Your task to perform on an android device: Go to Yahoo.com Image 0: 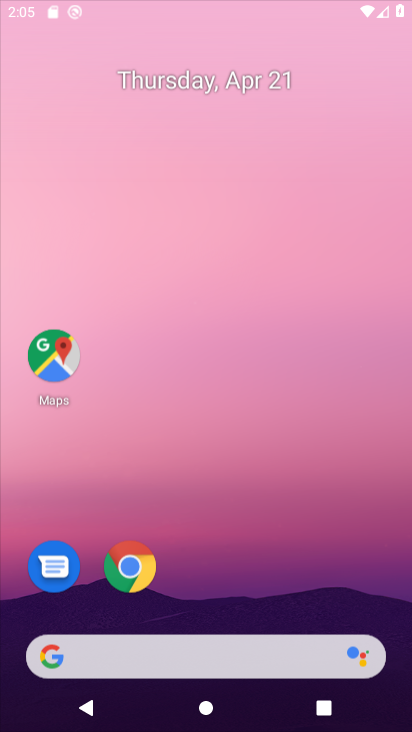
Step 0: click (199, 37)
Your task to perform on an android device: Go to Yahoo.com Image 1: 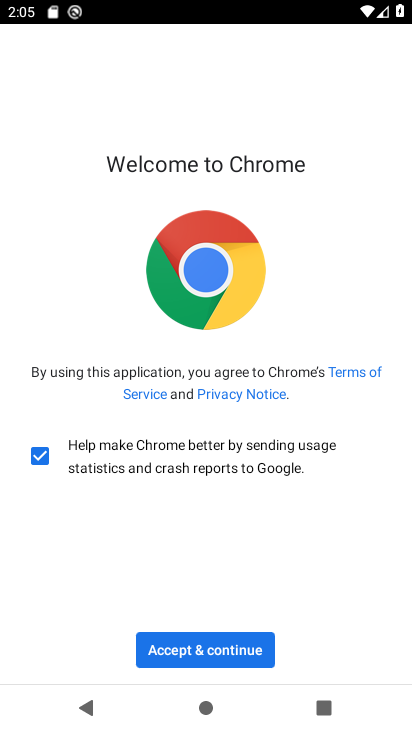
Step 1: click (222, 641)
Your task to perform on an android device: Go to Yahoo.com Image 2: 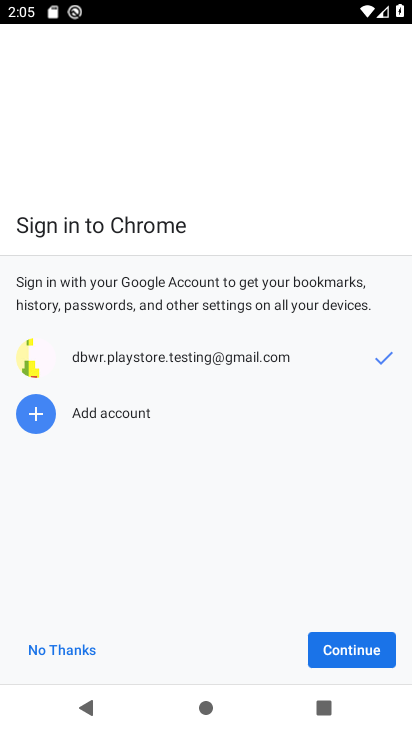
Step 2: click (341, 652)
Your task to perform on an android device: Go to Yahoo.com Image 3: 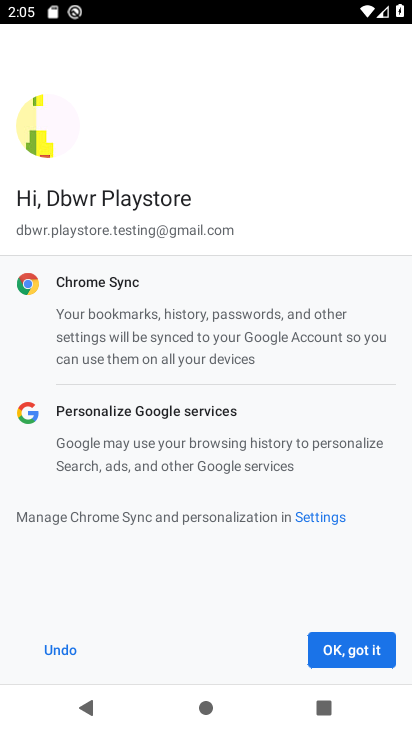
Step 3: click (341, 652)
Your task to perform on an android device: Go to Yahoo.com Image 4: 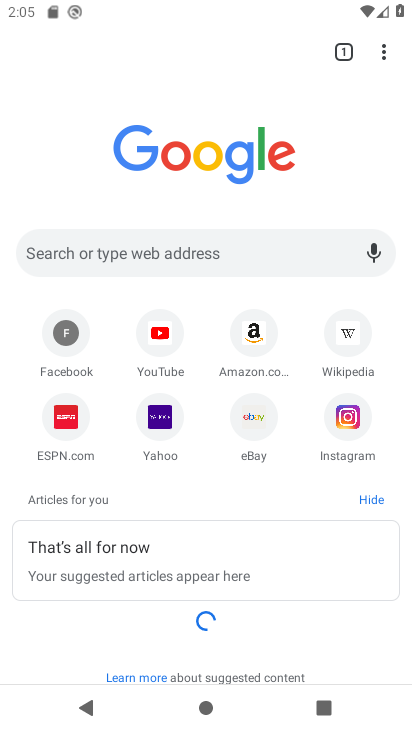
Step 4: click (153, 428)
Your task to perform on an android device: Go to Yahoo.com Image 5: 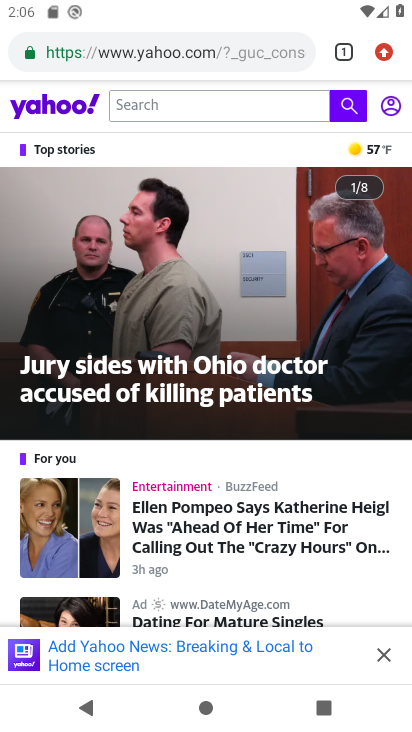
Step 5: task complete